Your task to perform on an android device: open a bookmark in the chrome app Image 0: 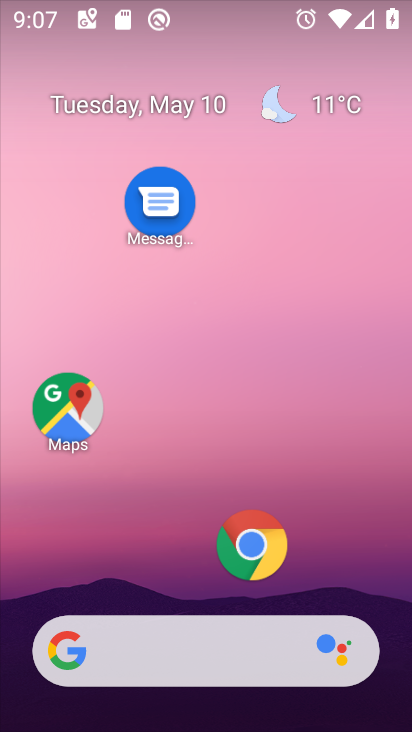
Step 0: drag from (199, 594) to (199, 90)
Your task to perform on an android device: open a bookmark in the chrome app Image 1: 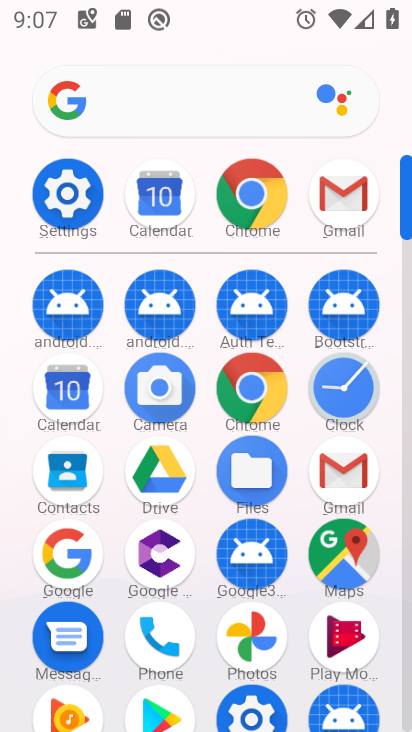
Step 1: click (249, 382)
Your task to perform on an android device: open a bookmark in the chrome app Image 2: 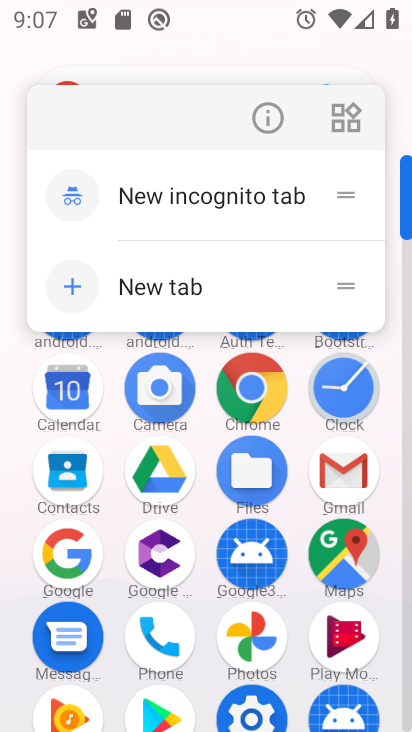
Step 2: click (249, 382)
Your task to perform on an android device: open a bookmark in the chrome app Image 3: 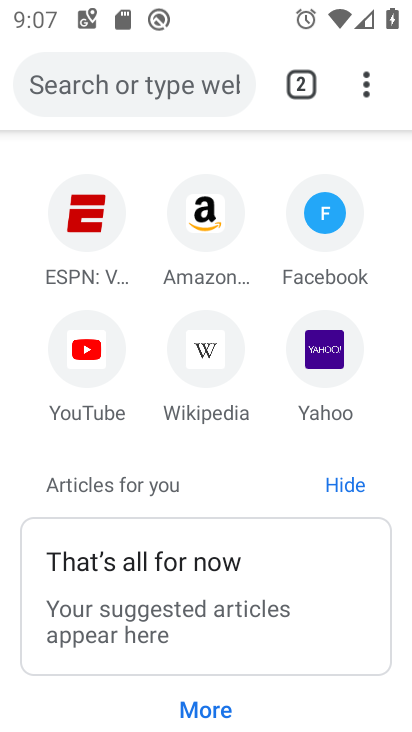
Step 3: click (355, 87)
Your task to perform on an android device: open a bookmark in the chrome app Image 4: 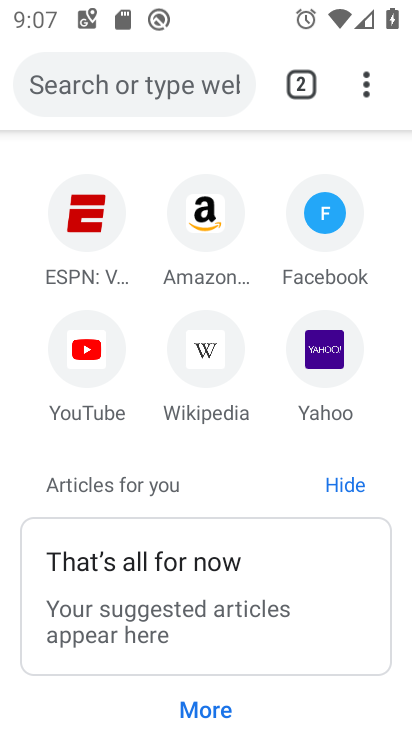
Step 4: click (371, 72)
Your task to perform on an android device: open a bookmark in the chrome app Image 5: 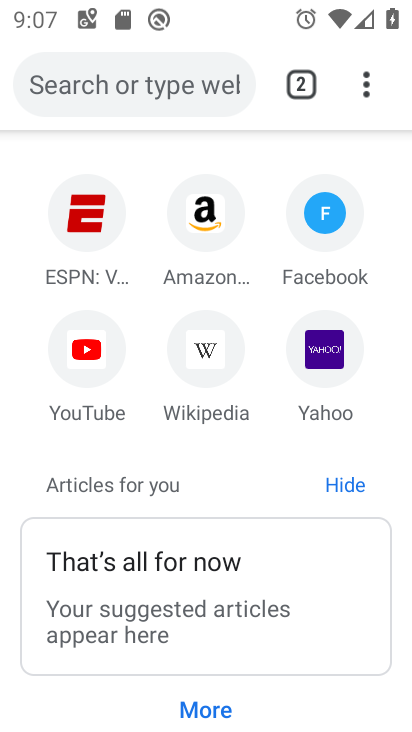
Step 5: click (375, 72)
Your task to perform on an android device: open a bookmark in the chrome app Image 6: 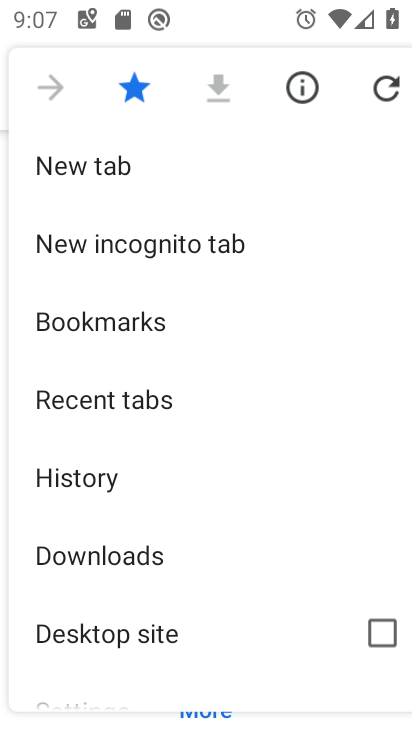
Step 6: click (136, 330)
Your task to perform on an android device: open a bookmark in the chrome app Image 7: 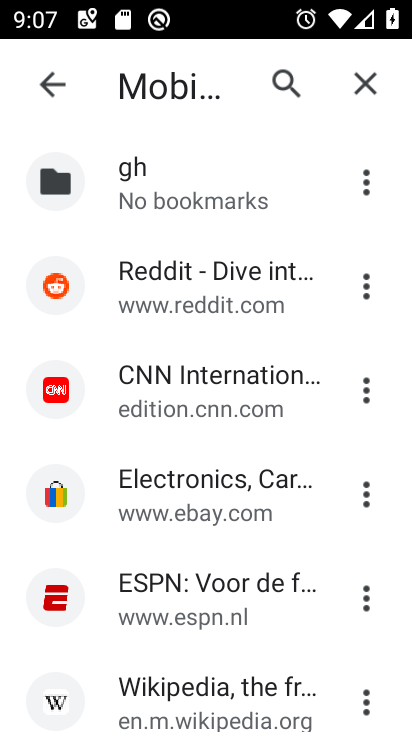
Step 7: task complete